Your task to perform on an android device: snooze an email in the gmail app Image 0: 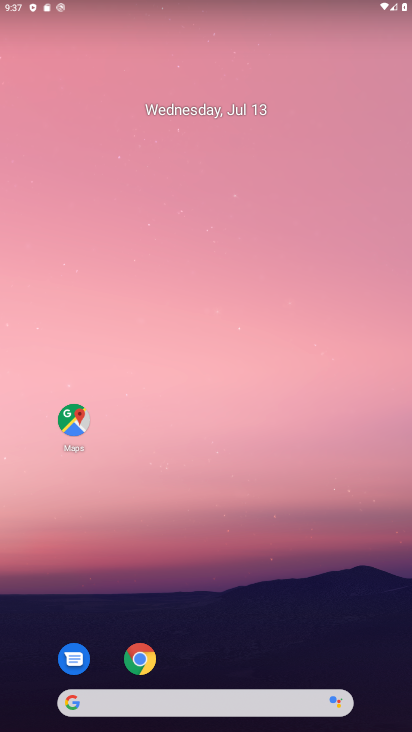
Step 0: drag from (272, 388) to (238, 23)
Your task to perform on an android device: snooze an email in the gmail app Image 1: 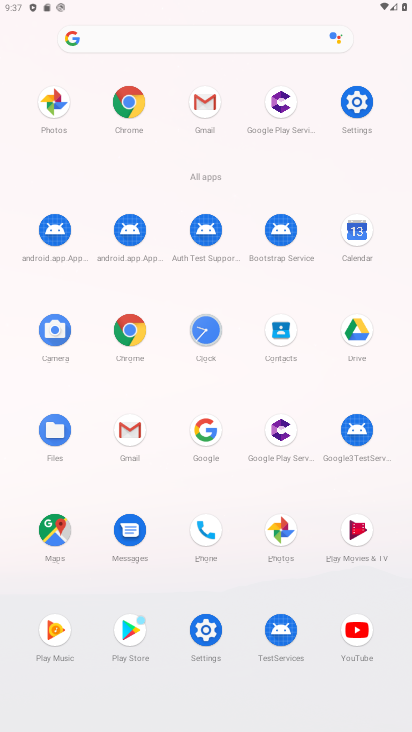
Step 1: click (201, 104)
Your task to perform on an android device: snooze an email in the gmail app Image 2: 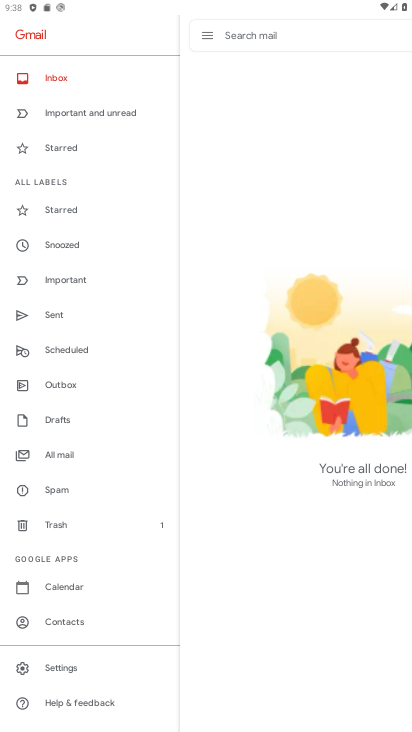
Step 2: click (65, 242)
Your task to perform on an android device: snooze an email in the gmail app Image 3: 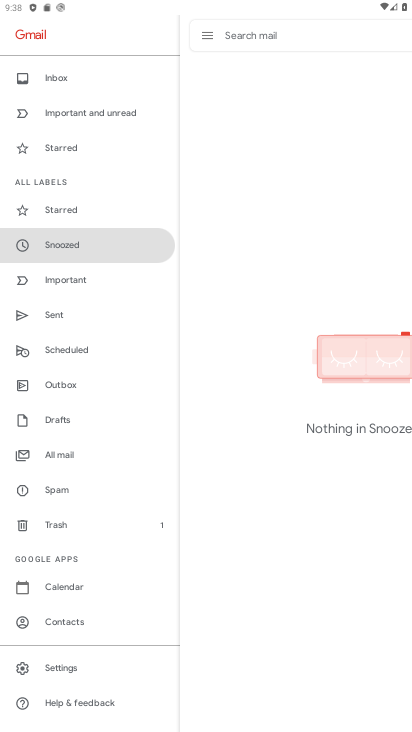
Step 3: click (68, 87)
Your task to perform on an android device: snooze an email in the gmail app Image 4: 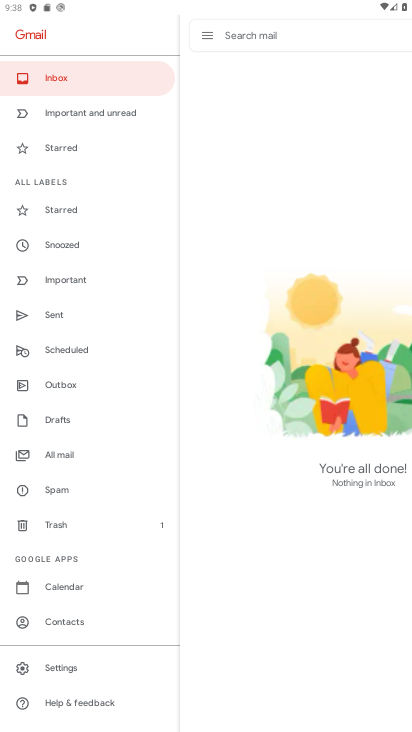
Step 4: task complete